Your task to perform on an android device: Is it going to rain tomorrow? Image 0: 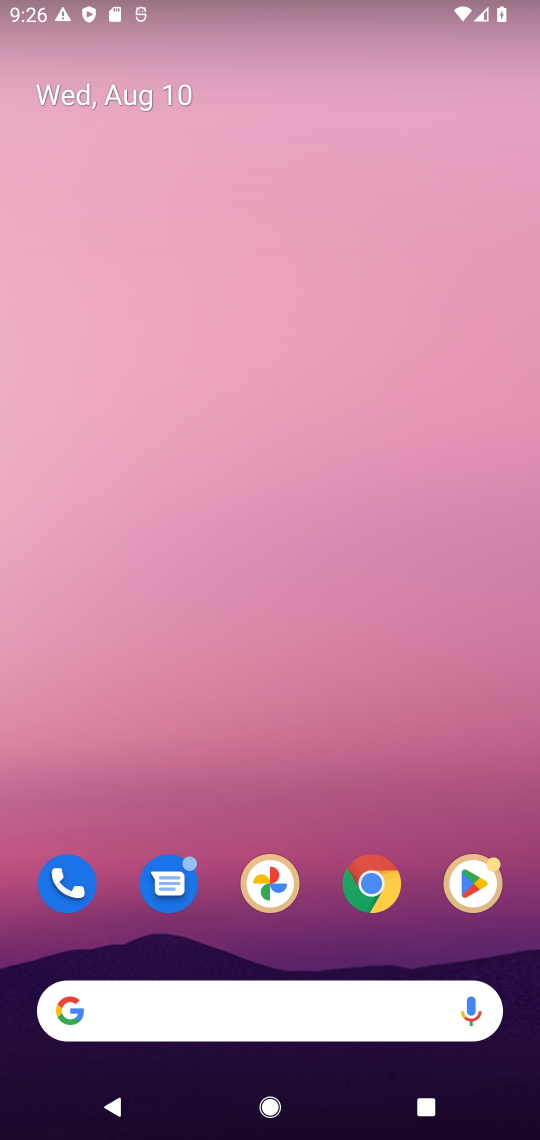
Step 0: press home button
Your task to perform on an android device: Is it going to rain tomorrow? Image 1: 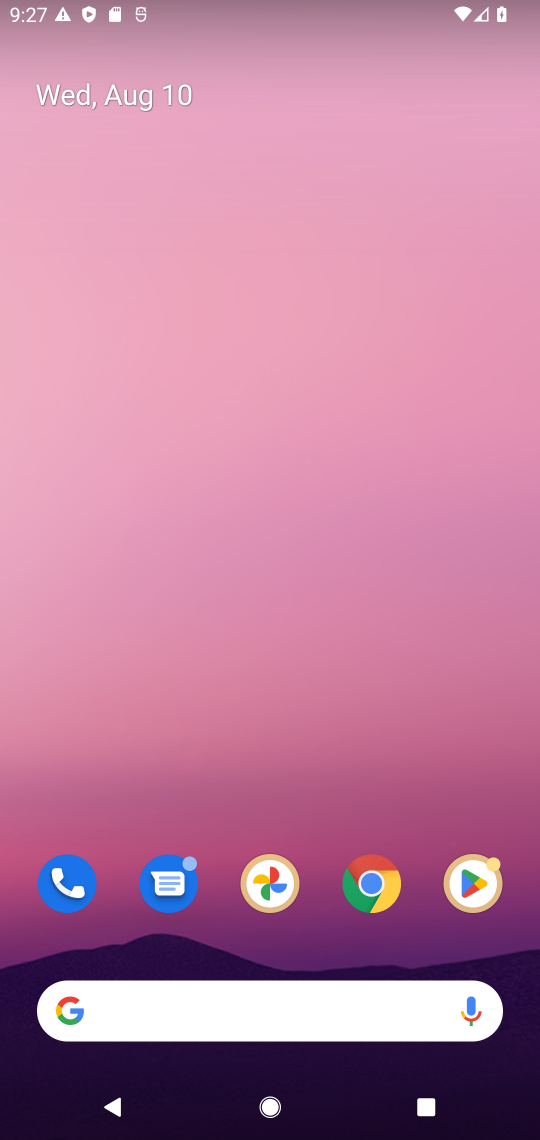
Step 1: drag from (16, 1133) to (271, 832)
Your task to perform on an android device: Is it going to rain tomorrow? Image 2: 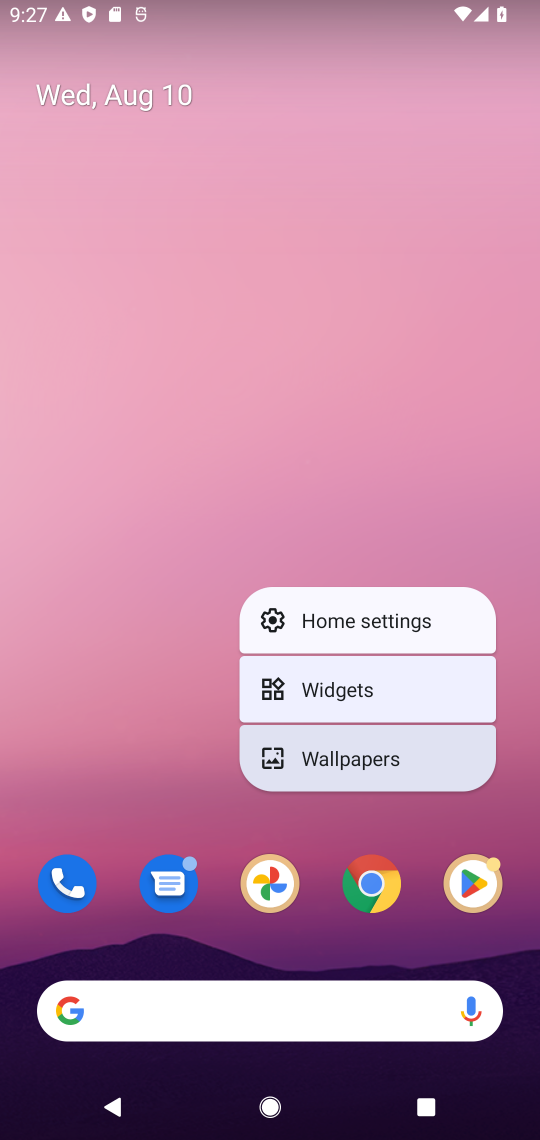
Step 2: click (374, 884)
Your task to perform on an android device: Is it going to rain tomorrow? Image 3: 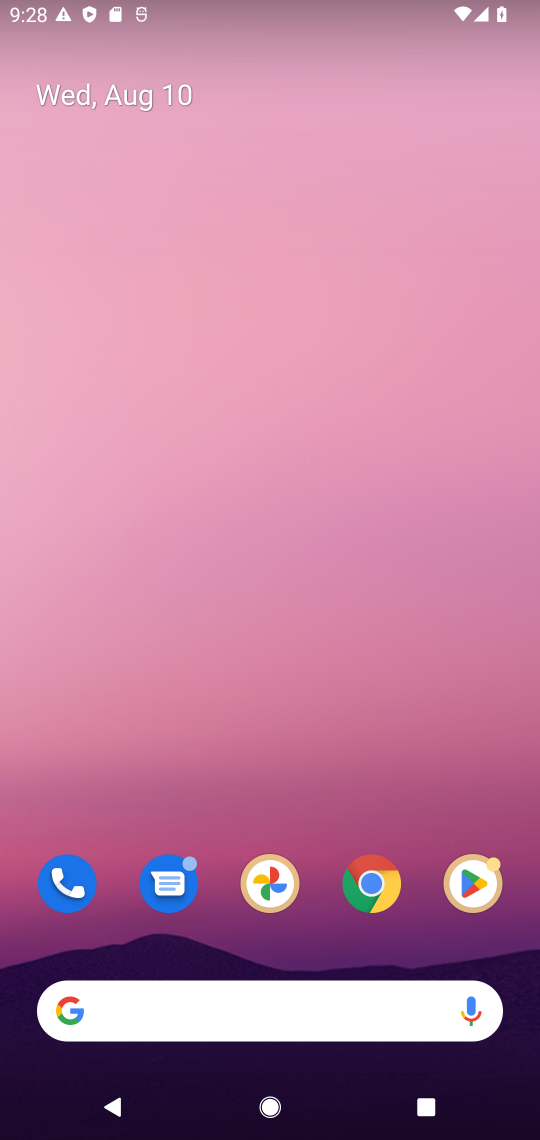
Step 3: click (353, 904)
Your task to perform on an android device: Is it going to rain tomorrow? Image 4: 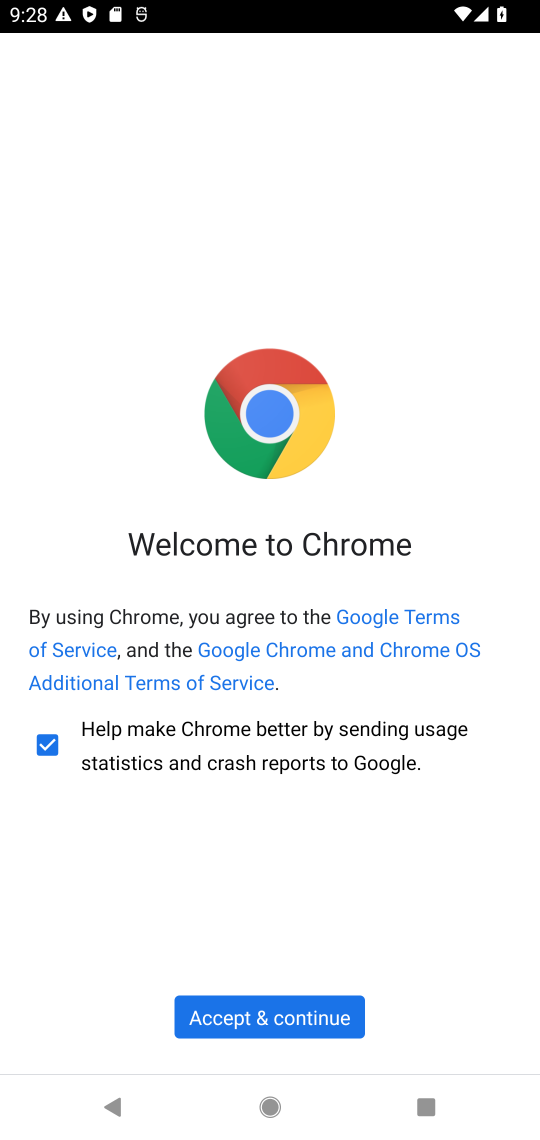
Step 4: click (319, 1023)
Your task to perform on an android device: Is it going to rain tomorrow? Image 5: 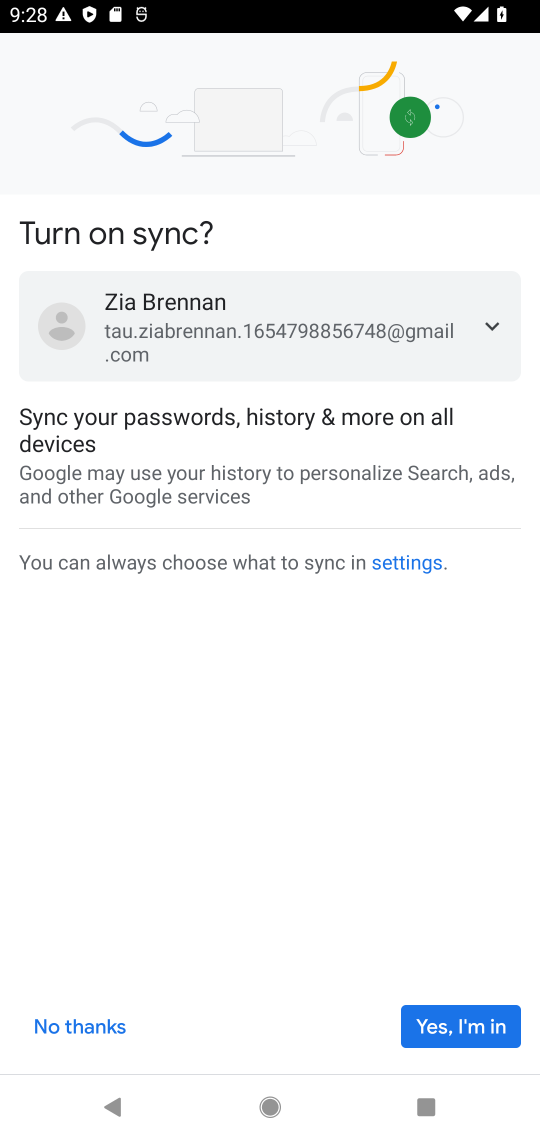
Step 5: click (451, 1017)
Your task to perform on an android device: Is it going to rain tomorrow? Image 6: 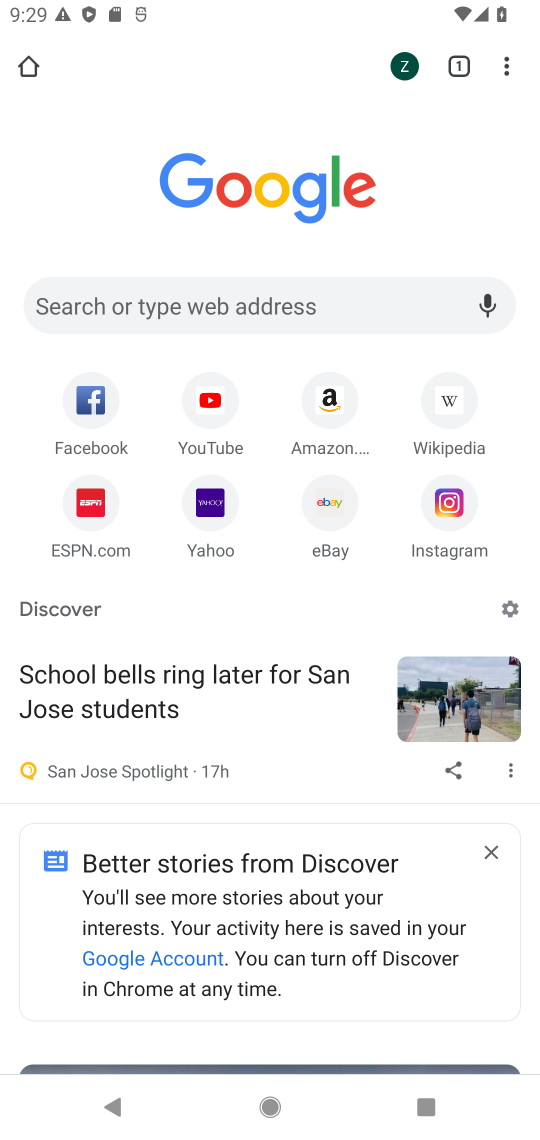
Step 6: click (373, 314)
Your task to perform on an android device: Is it going to rain tomorrow? Image 7: 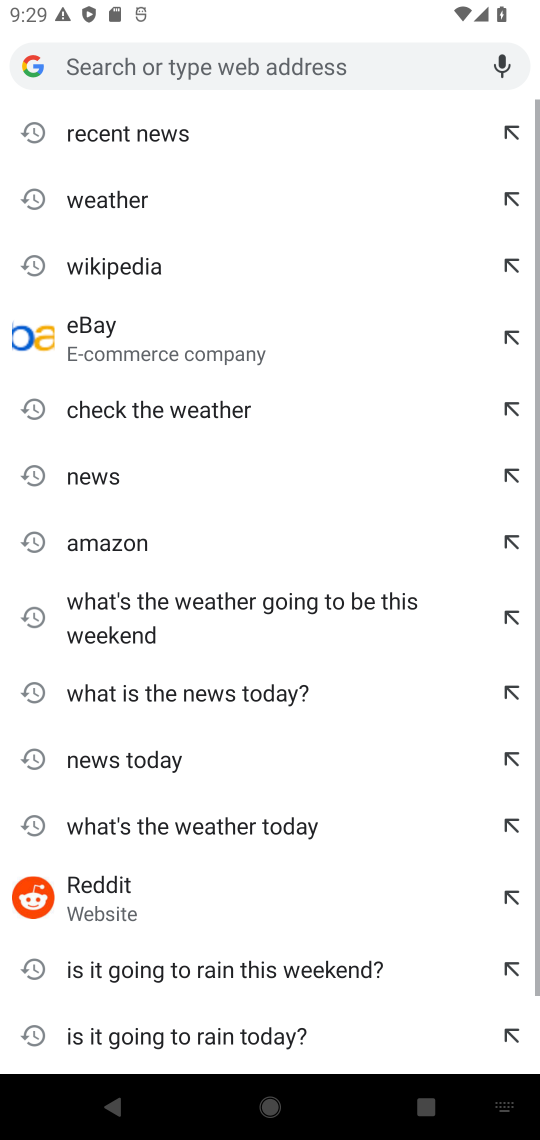
Step 7: type "Is it going to rain tomorrow?"
Your task to perform on an android device: Is it going to rain tomorrow? Image 8: 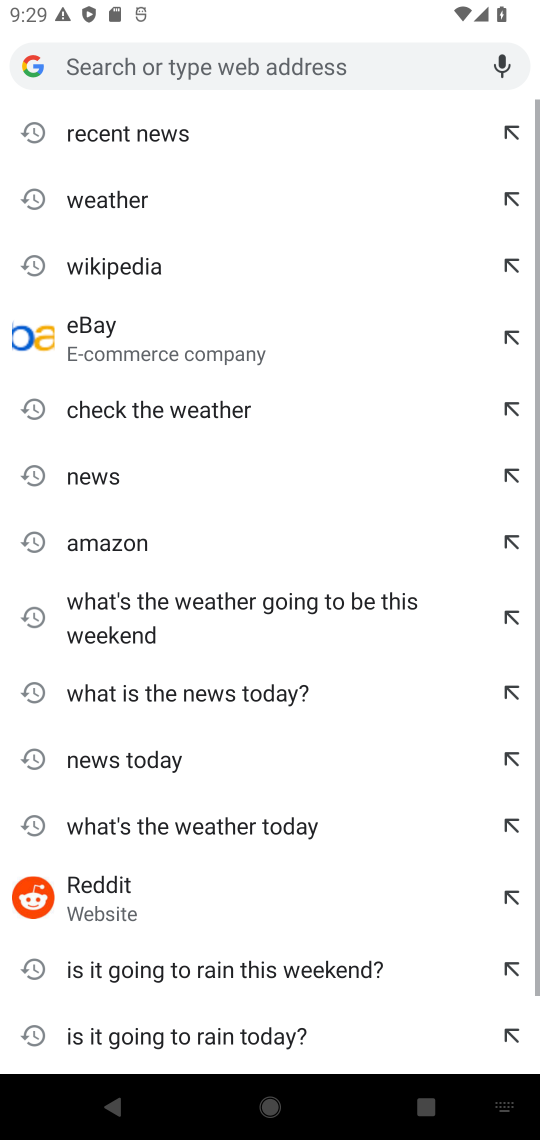
Step 8: click (189, 138)
Your task to perform on an android device: Is it going to rain tomorrow? Image 9: 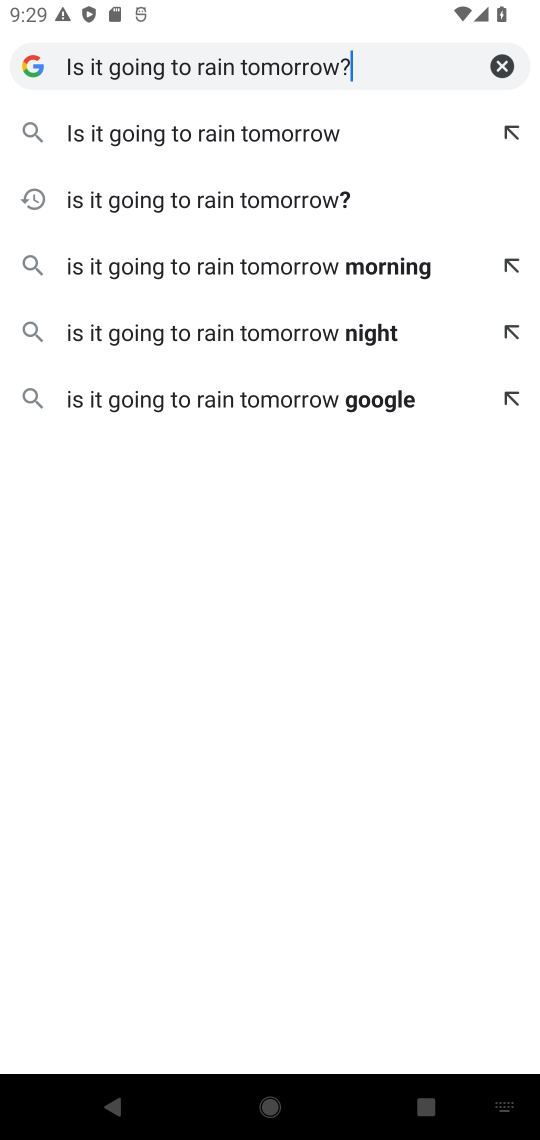
Step 9: type ""
Your task to perform on an android device: Is it going to rain tomorrow? Image 10: 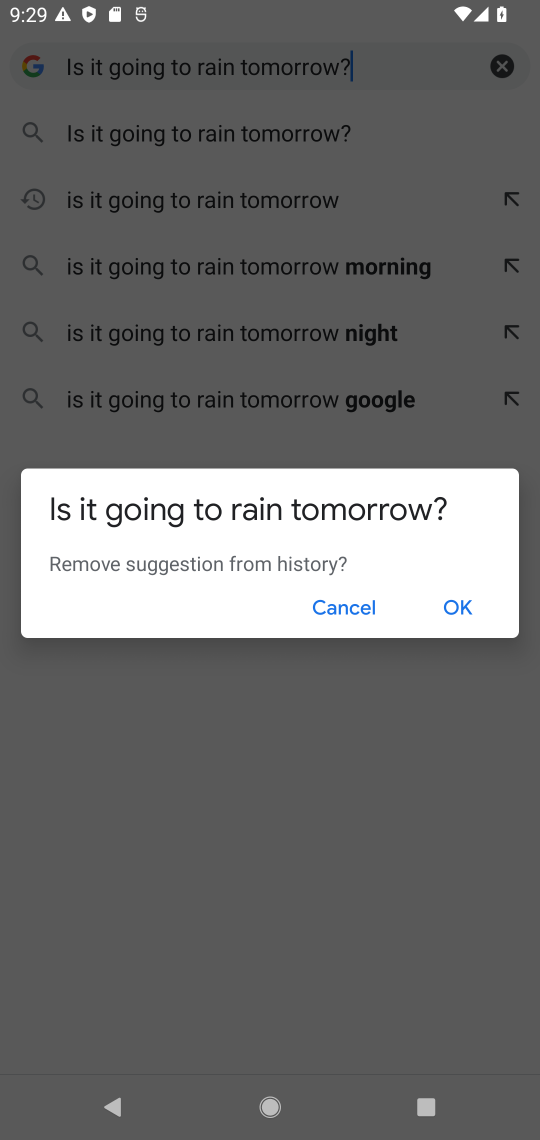
Step 10: click (362, 620)
Your task to perform on an android device: Is it going to rain tomorrow? Image 11: 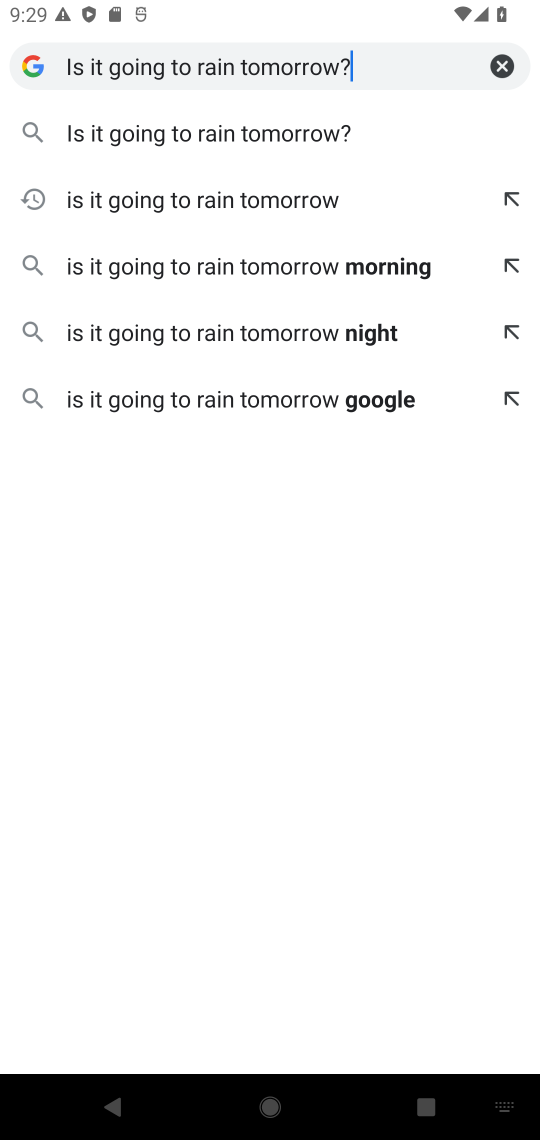
Step 11: click (289, 126)
Your task to perform on an android device: Is it going to rain tomorrow? Image 12: 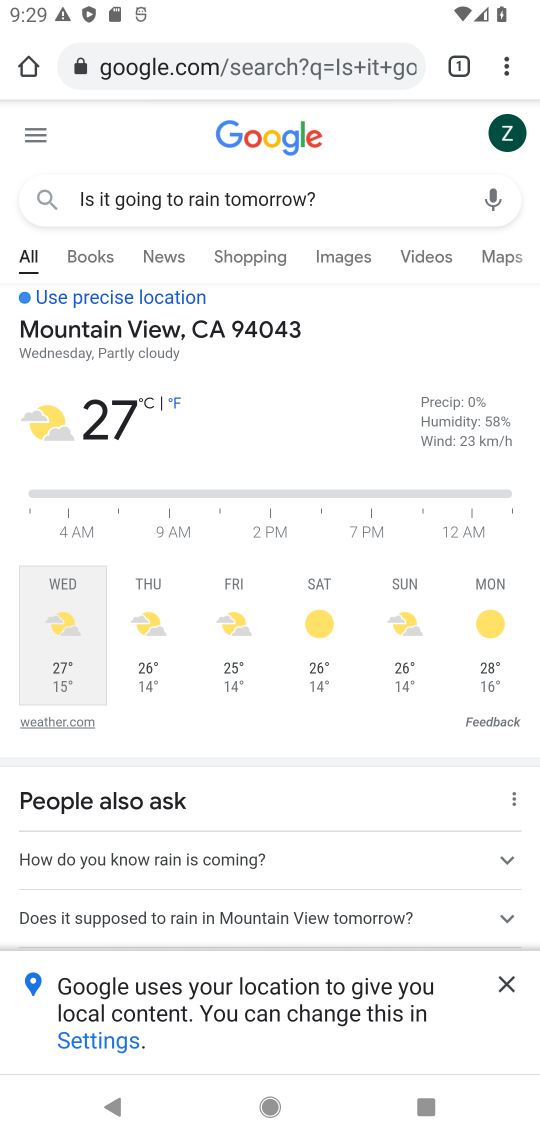
Step 12: task complete